Your task to perform on an android device: toggle wifi Image 0: 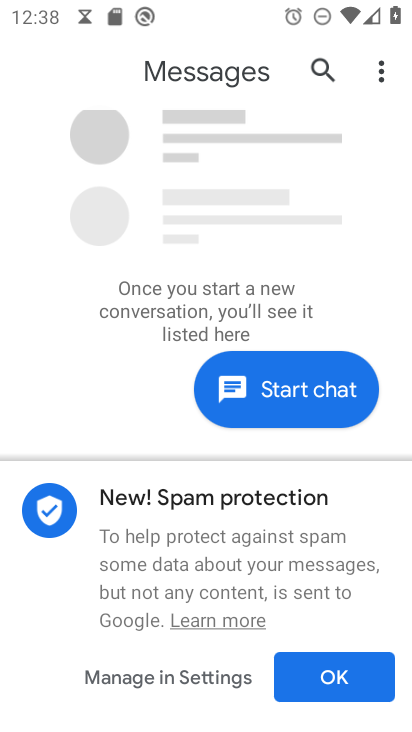
Step 0: press home button
Your task to perform on an android device: toggle wifi Image 1: 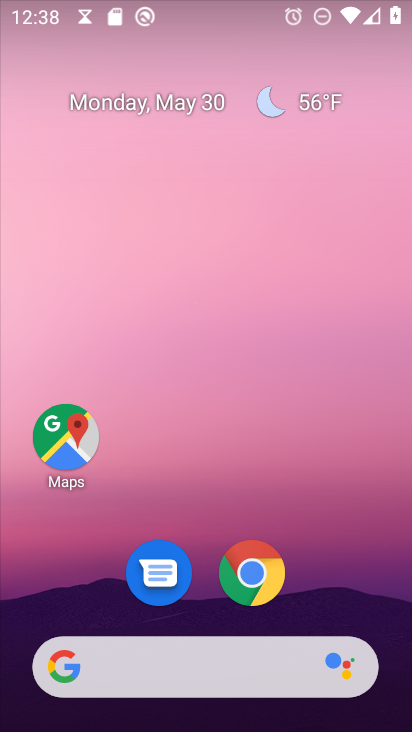
Step 1: drag from (271, 661) to (289, 17)
Your task to perform on an android device: toggle wifi Image 2: 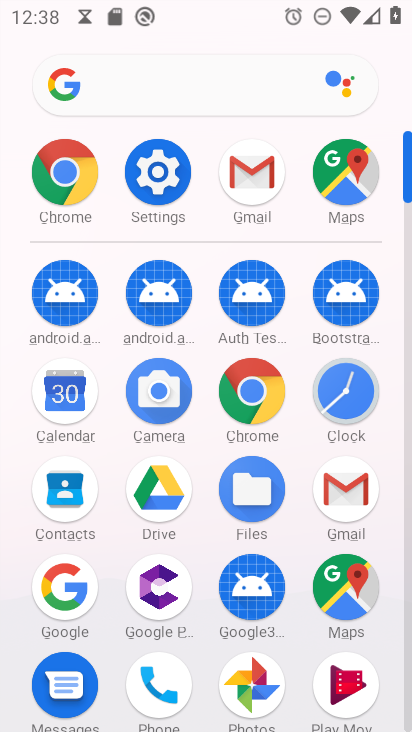
Step 2: click (162, 174)
Your task to perform on an android device: toggle wifi Image 3: 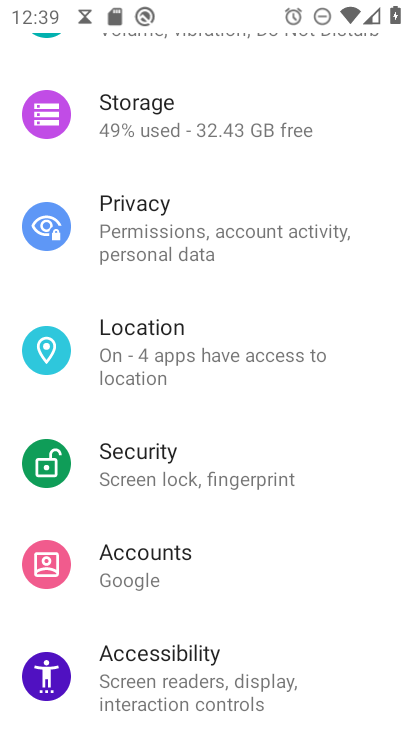
Step 3: drag from (175, 174) to (277, 644)
Your task to perform on an android device: toggle wifi Image 4: 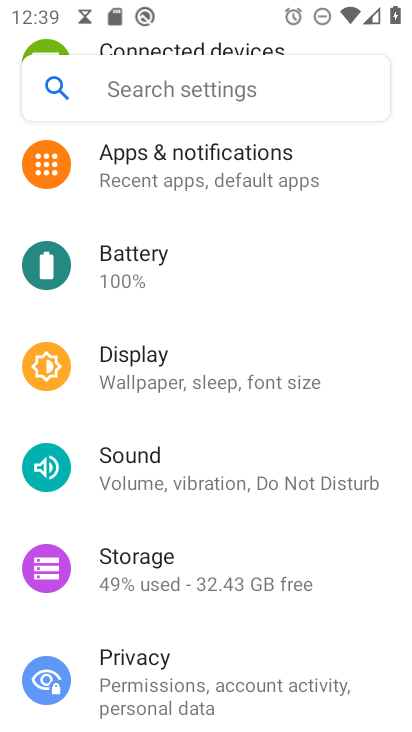
Step 4: drag from (184, 208) to (159, 699)
Your task to perform on an android device: toggle wifi Image 5: 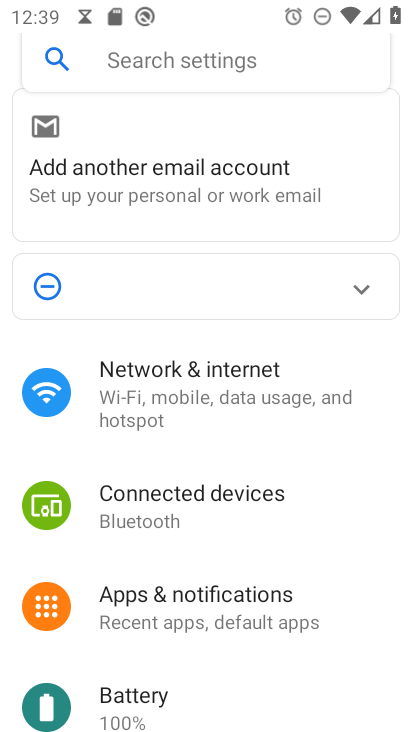
Step 5: click (157, 404)
Your task to perform on an android device: toggle wifi Image 6: 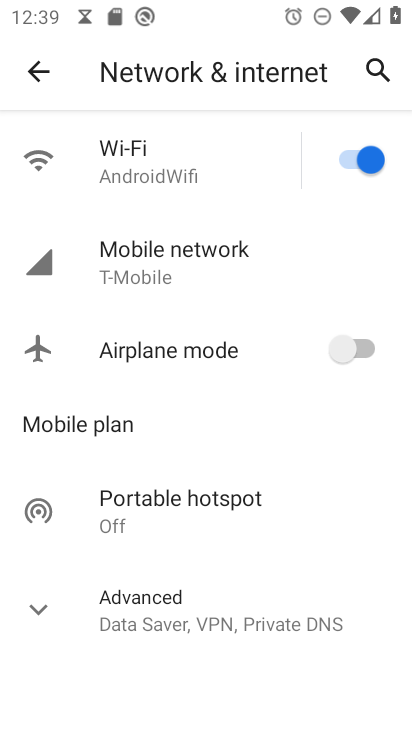
Step 6: click (168, 166)
Your task to perform on an android device: toggle wifi Image 7: 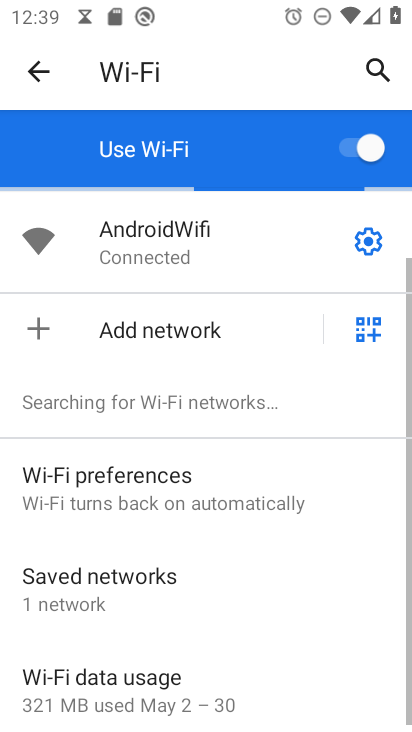
Step 7: click (347, 157)
Your task to perform on an android device: toggle wifi Image 8: 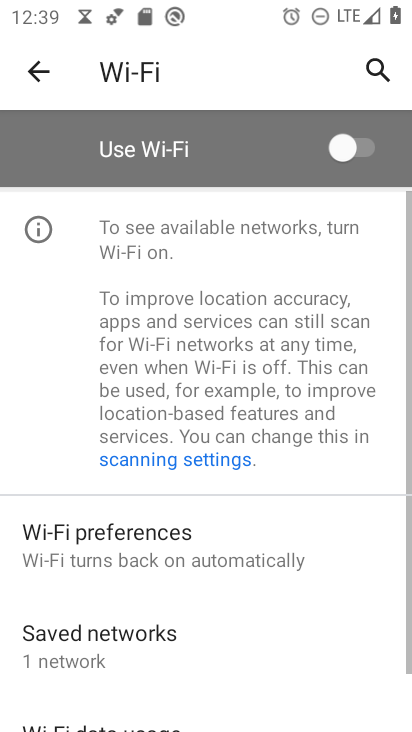
Step 8: task complete